Your task to perform on an android device: move a message to another label in the gmail app Image 0: 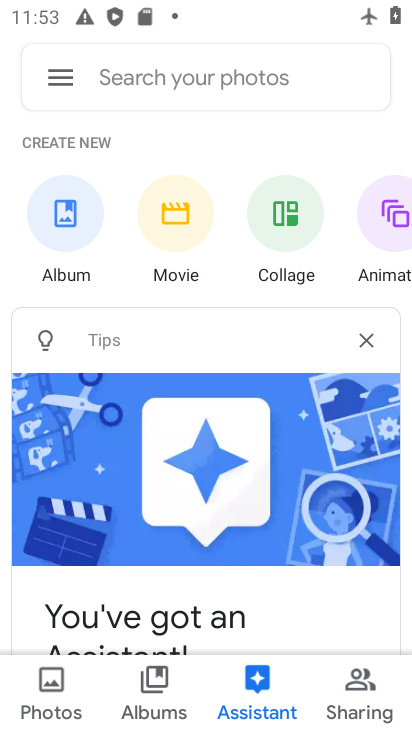
Step 0: press home button
Your task to perform on an android device: move a message to another label in the gmail app Image 1: 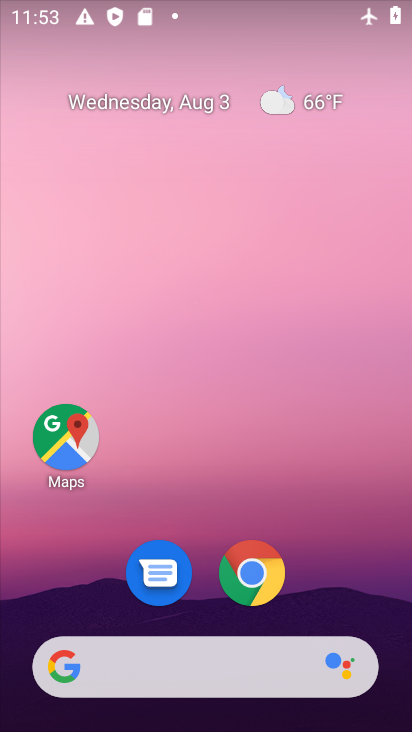
Step 1: drag from (354, 513) to (305, 0)
Your task to perform on an android device: move a message to another label in the gmail app Image 2: 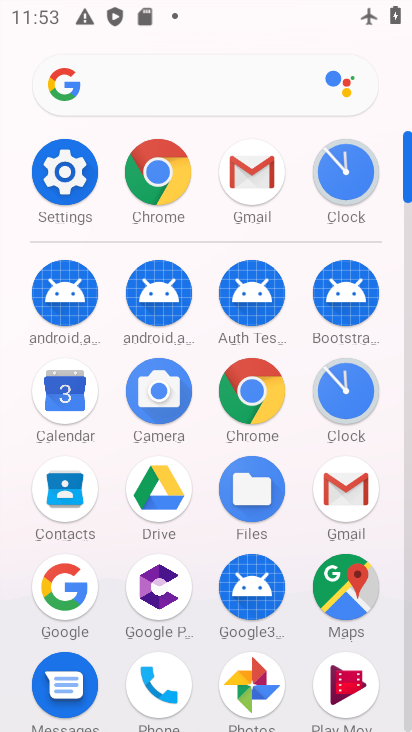
Step 2: click (336, 521)
Your task to perform on an android device: move a message to another label in the gmail app Image 3: 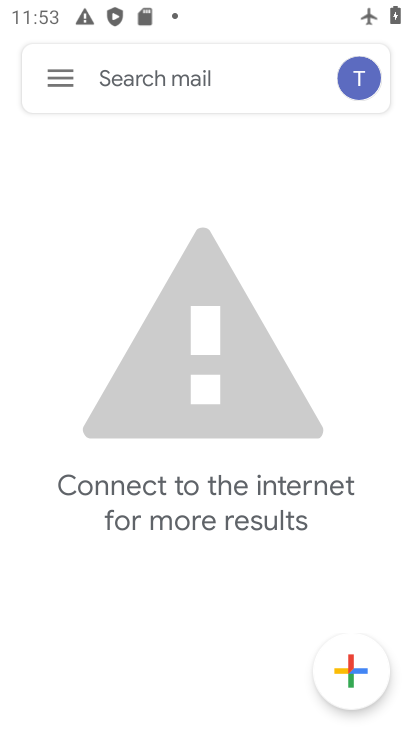
Step 3: click (55, 85)
Your task to perform on an android device: move a message to another label in the gmail app Image 4: 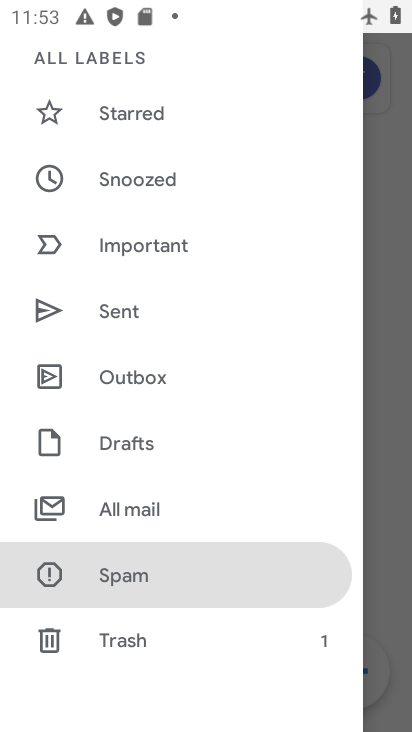
Step 4: click (184, 146)
Your task to perform on an android device: move a message to another label in the gmail app Image 5: 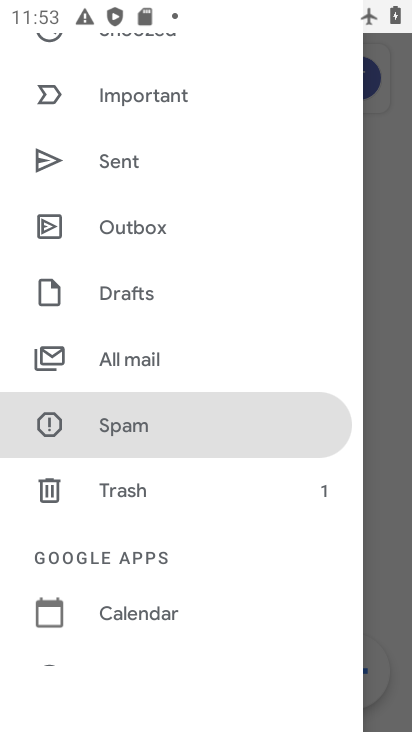
Step 5: click (134, 381)
Your task to perform on an android device: move a message to another label in the gmail app Image 6: 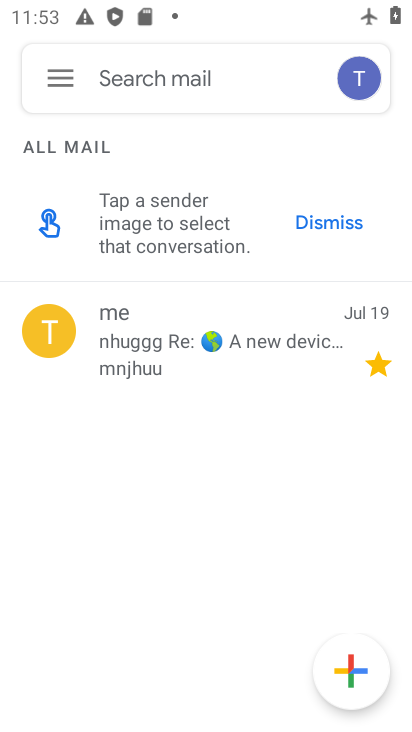
Step 6: click (145, 354)
Your task to perform on an android device: move a message to another label in the gmail app Image 7: 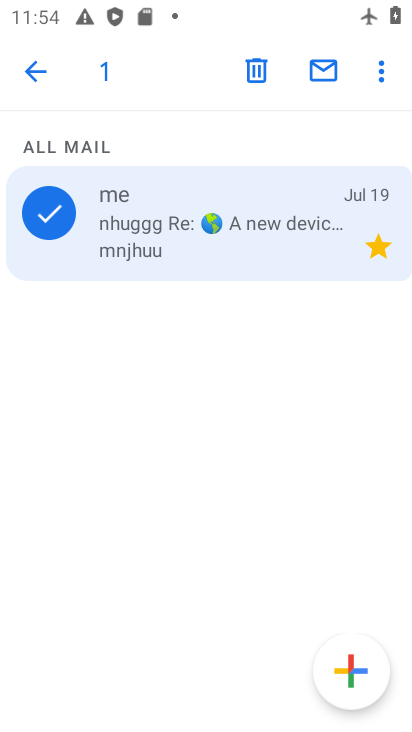
Step 7: click (377, 76)
Your task to perform on an android device: move a message to another label in the gmail app Image 8: 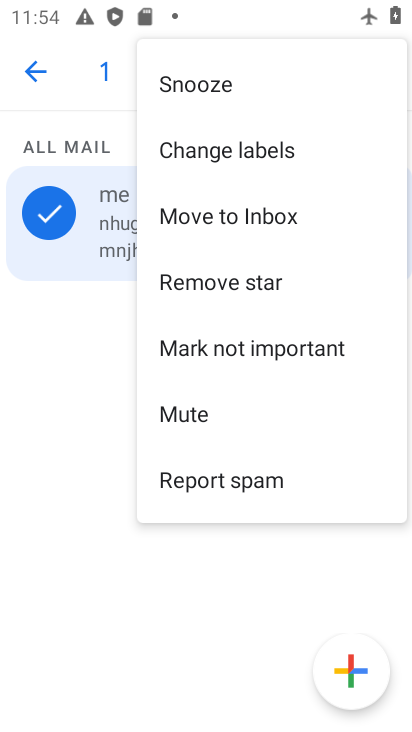
Step 8: click (247, 143)
Your task to perform on an android device: move a message to another label in the gmail app Image 9: 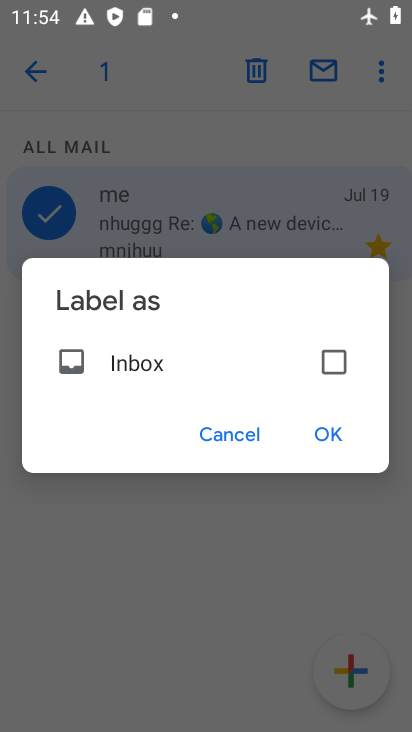
Step 9: click (337, 358)
Your task to perform on an android device: move a message to another label in the gmail app Image 10: 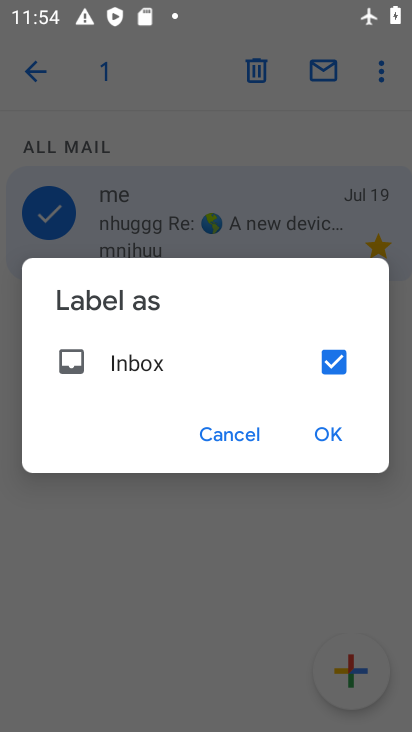
Step 10: click (323, 429)
Your task to perform on an android device: move a message to another label in the gmail app Image 11: 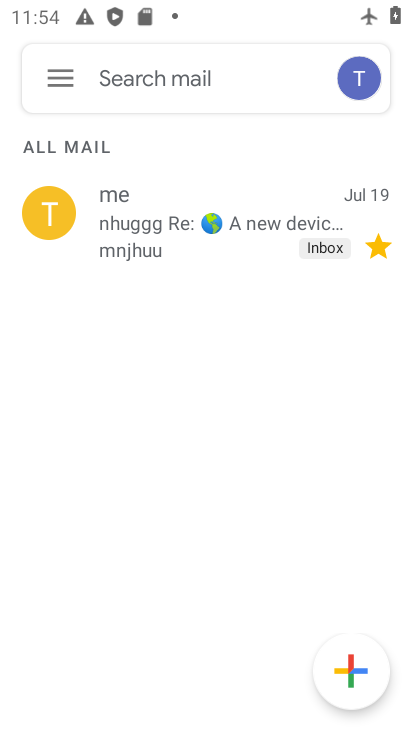
Step 11: task complete